Your task to perform on an android device: star an email in the gmail app Image 0: 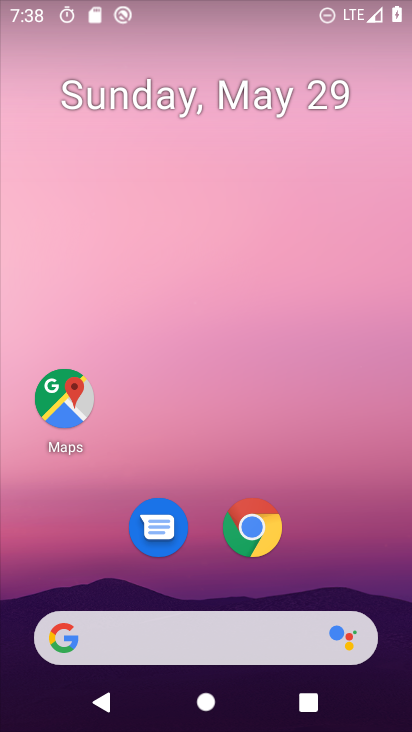
Step 0: drag from (392, 616) to (272, 4)
Your task to perform on an android device: star an email in the gmail app Image 1: 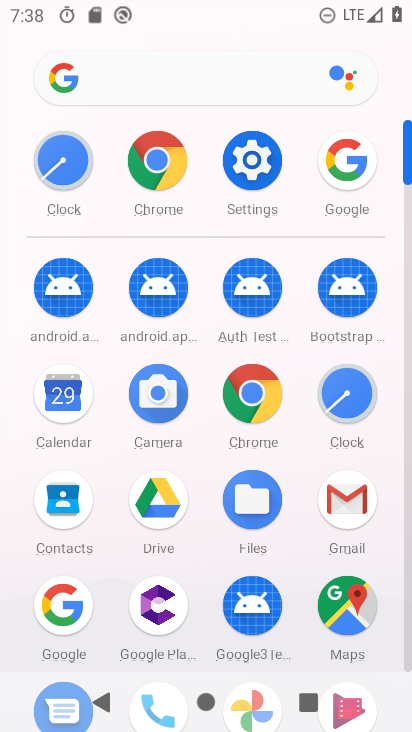
Step 1: click (339, 526)
Your task to perform on an android device: star an email in the gmail app Image 2: 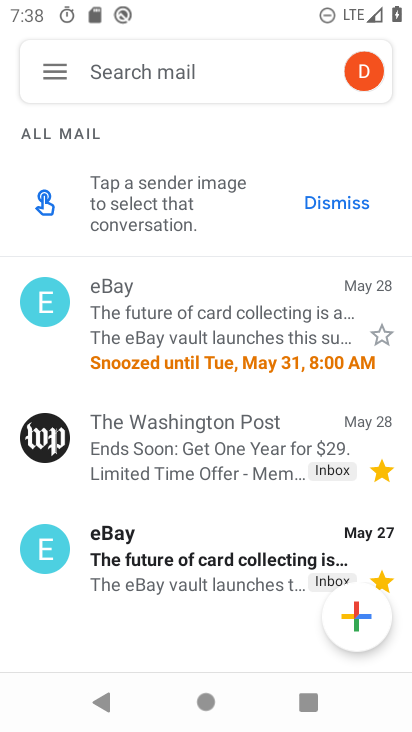
Step 2: click (383, 329)
Your task to perform on an android device: star an email in the gmail app Image 3: 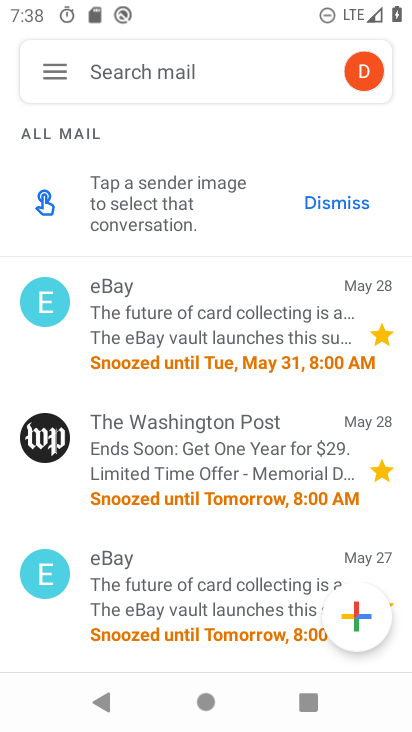
Step 3: task complete